Your task to perform on an android device: toggle airplane mode Image 0: 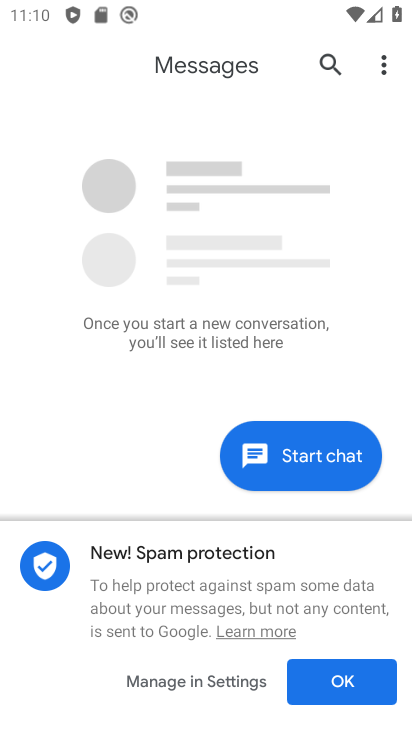
Step 0: press home button
Your task to perform on an android device: toggle airplane mode Image 1: 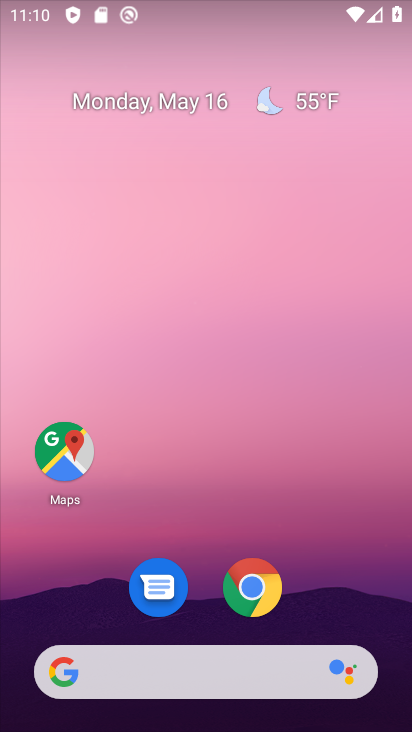
Step 1: drag from (207, 620) to (322, 182)
Your task to perform on an android device: toggle airplane mode Image 2: 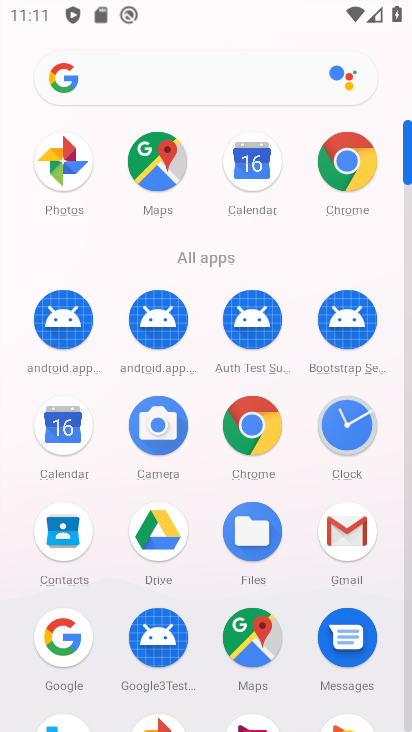
Step 2: drag from (210, 644) to (262, 232)
Your task to perform on an android device: toggle airplane mode Image 3: 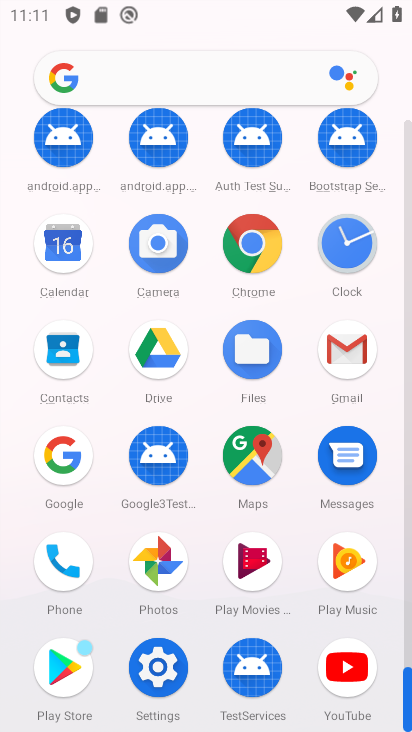
Step 3: click (146, 663)
Your task to perform on an android device: toggle airplane mode Image 4: 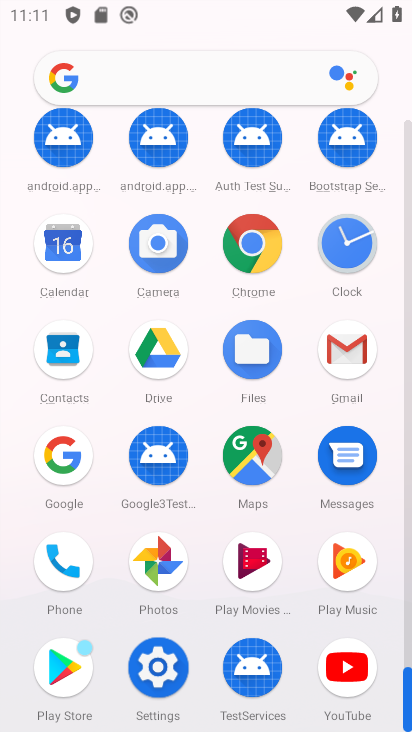
Step 4: click (145, 663)
Your task to perform on an android device: toggle airplane mode Image 5: 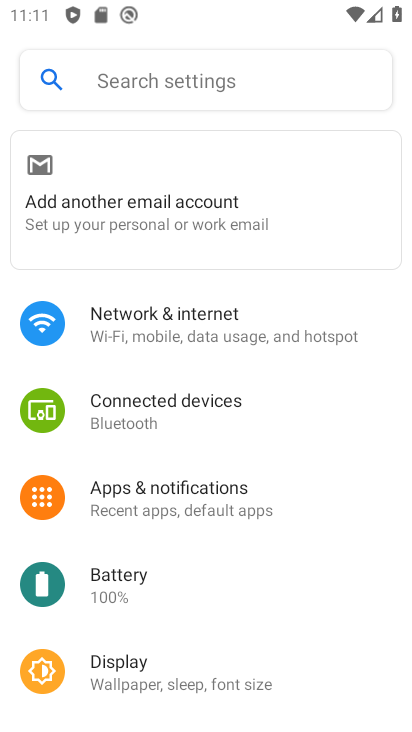
Step 5: click (222, 325)
Your task to perform on an android device: toggle airplane mode Image 6: 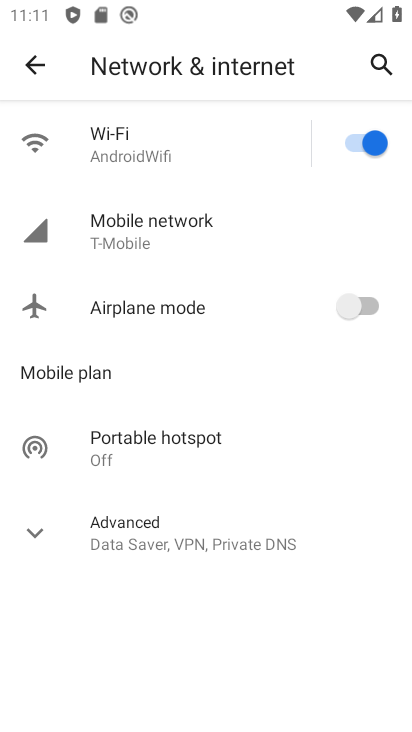
Step 6: click (222, 307)
Your task to perform on an android device: toggle airplane mode Image 7: 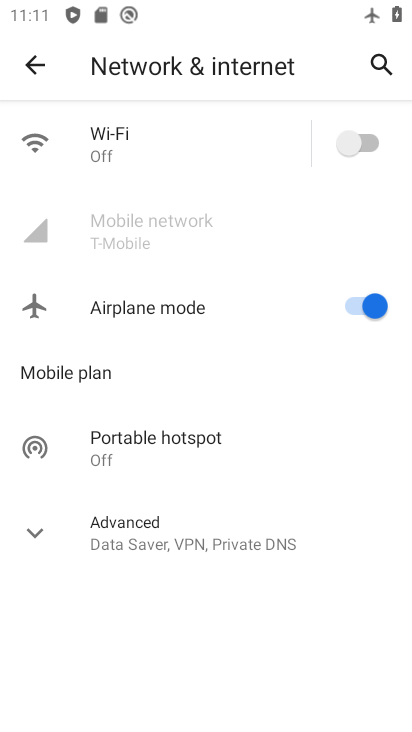
Step 7: task complete